Your task to perform on an android device: clear all cookies in the chrome app Image 0: 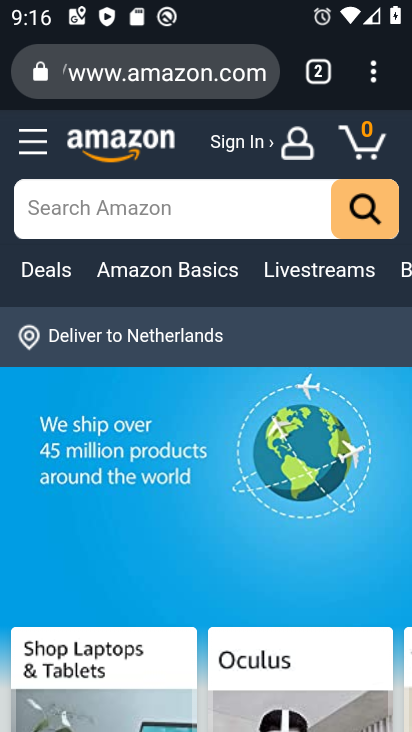
Step 0: press home button
Your task to perform on an android device: clear all cookies in the chrome app Image 1: 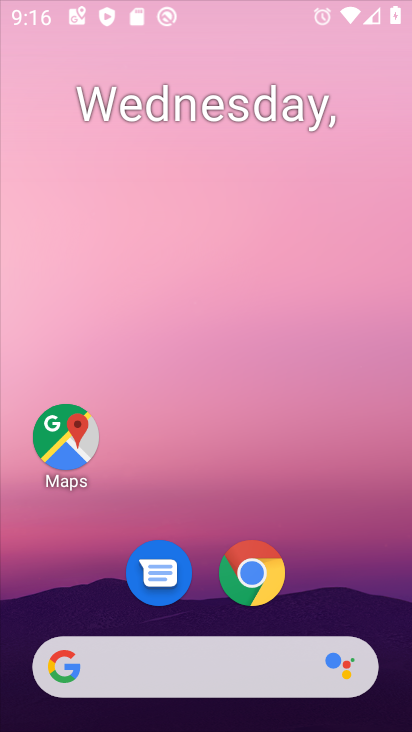
Step 1: drag from (208, 521) to (229, 142)
Your task to perform on an android device: clear all cookies in the chrome app Image 2: 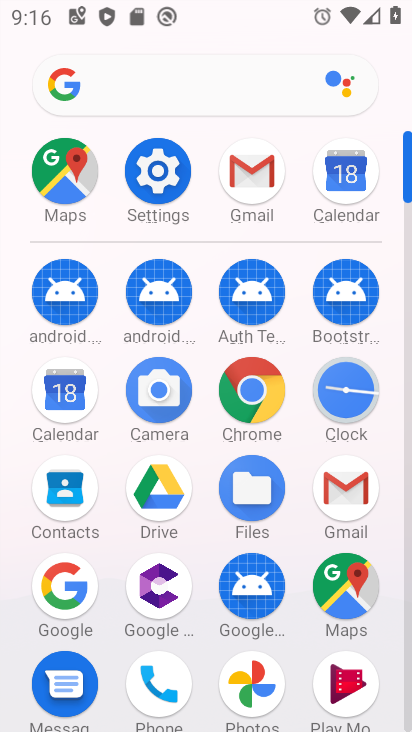
Step 2: click (264, 405)
Your task to perform on an android device: clear all cookies in the chrome app Image 3: 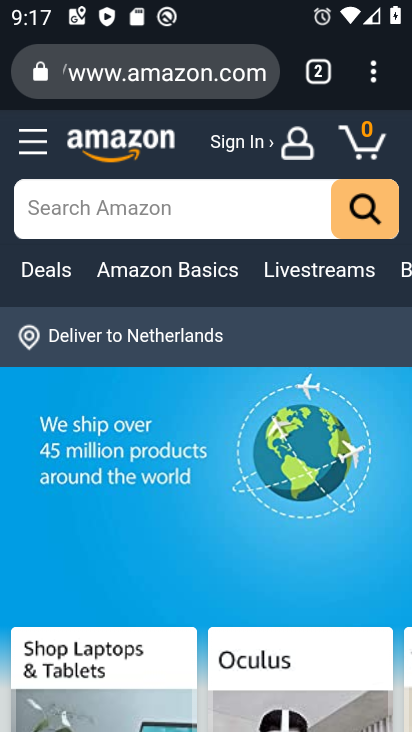
Step 3: click (372, 67)
Your task to perform on an android device: clear all cookies in the chrome app Image 4: 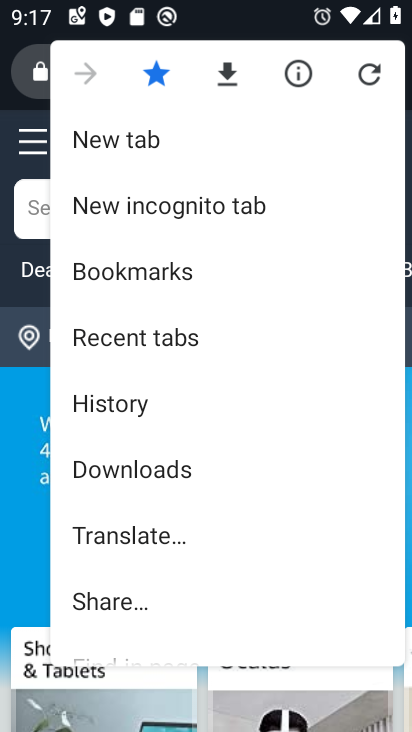
Step 4: click (167, 401)
Your task to perform on an android device: clear all cookies in the chrome app Image 5: 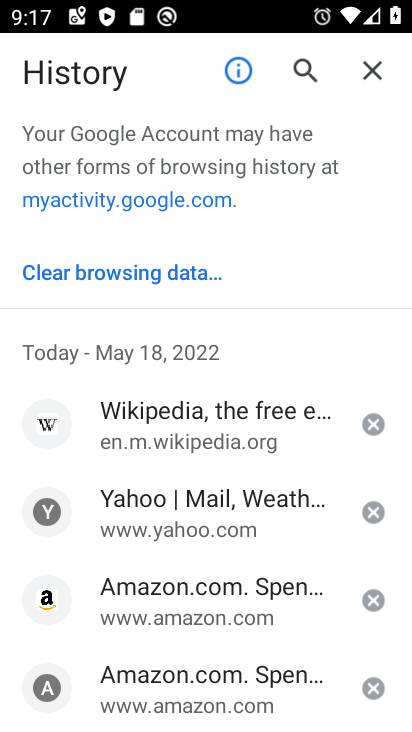
Step 5: click (183, 276)
Your task to perform on an android device: clear all cookies in the chrome app Image 6: 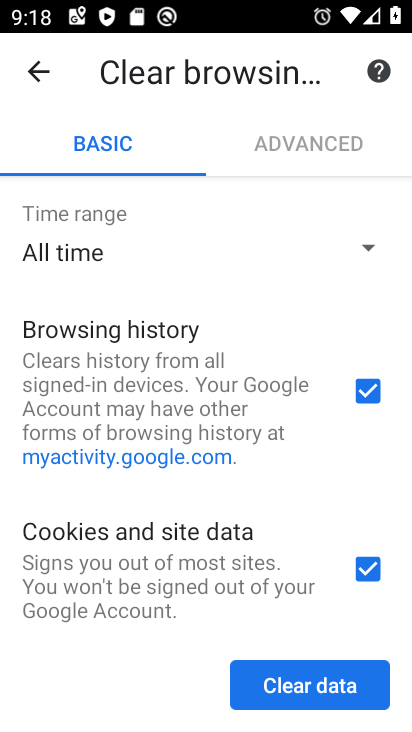
Step 6: click (382, 400)
Your task to perform on an android device: clear all cookies in the chrome app Image 7: 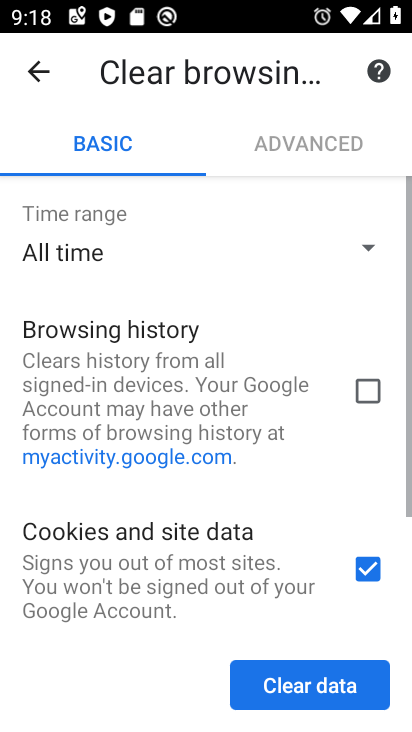
Step 7: click (327, 680)
Your task to perform on an android device: clear all cookies in the chrome app Image 8: 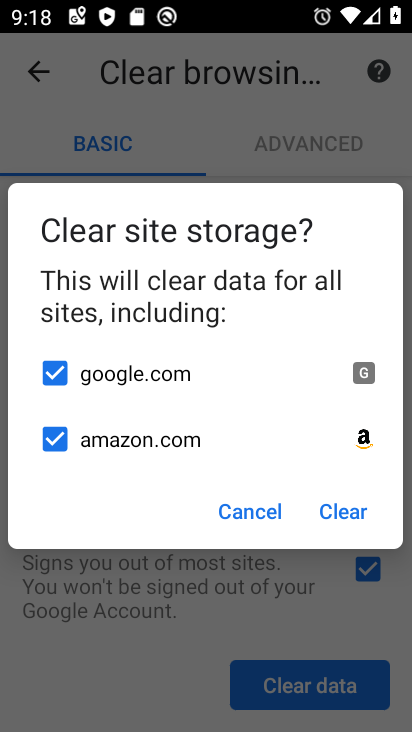
Step 8: click (348, 514)
Your task to perform on an android device: clear all cookies in the chrome app Image 9: 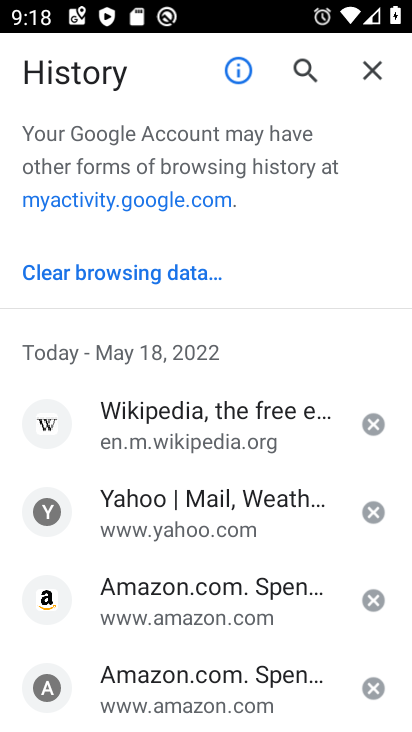
Step 9: task complete